Your task to perform on an android device: Check the weather Image 0: 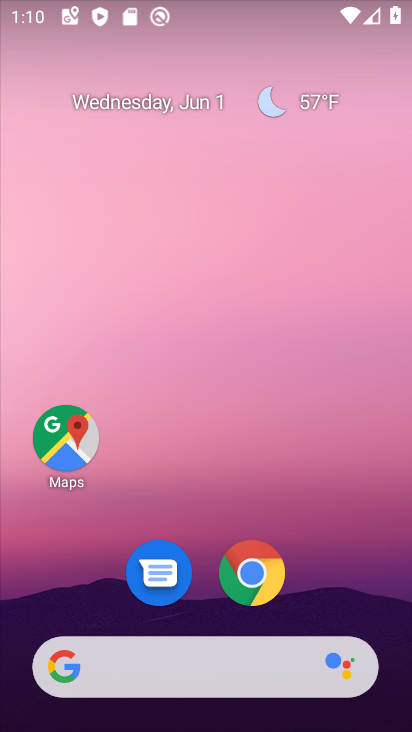
Step 0: drag from (207, 622) to (84, 46)
Your task to perform on an android device: Check the weather Image 1: 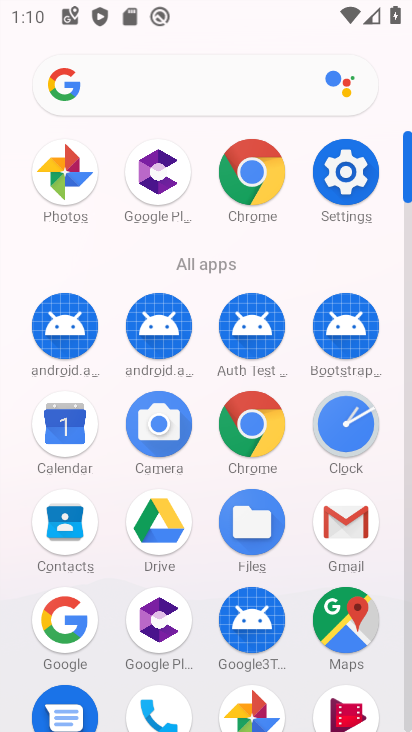
Step 1: click (170, 81)
Your task to perform on an android device: Check the weather Image 2: 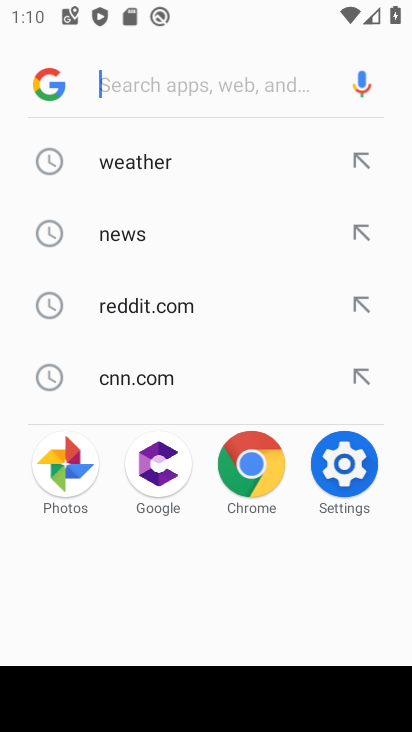
Step 2: click (155, 174)
Your task to perform on an android device: Check the weather Image 3: 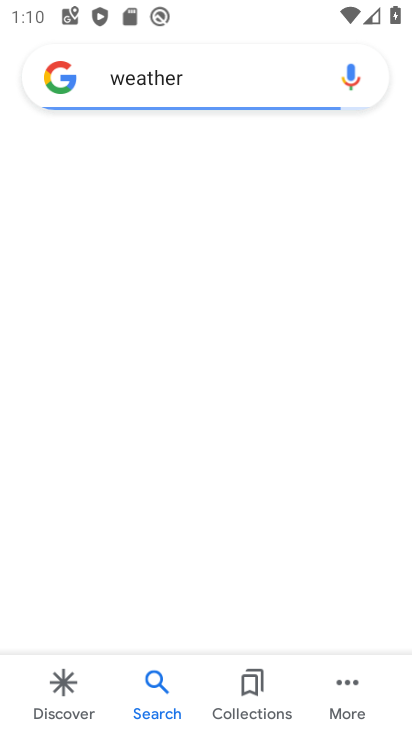
Step 3: task complete